Your task to perform on an android device: create a new album in the google photos Image 0: 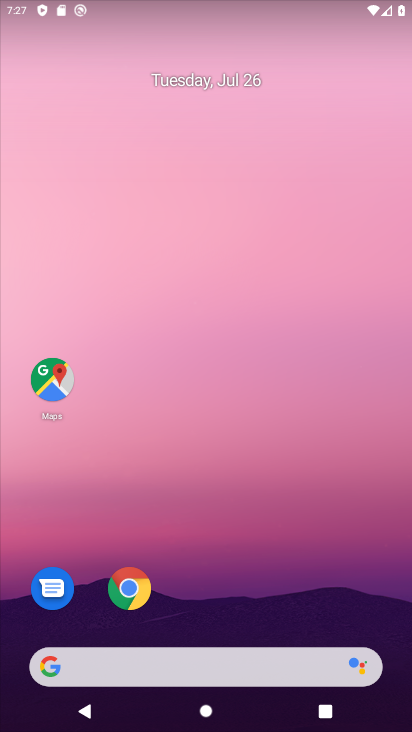
Step 0: drag from (225, 527) to (245, 223)
Your task to perform on an android device: create a new album in the google photos Image 1: 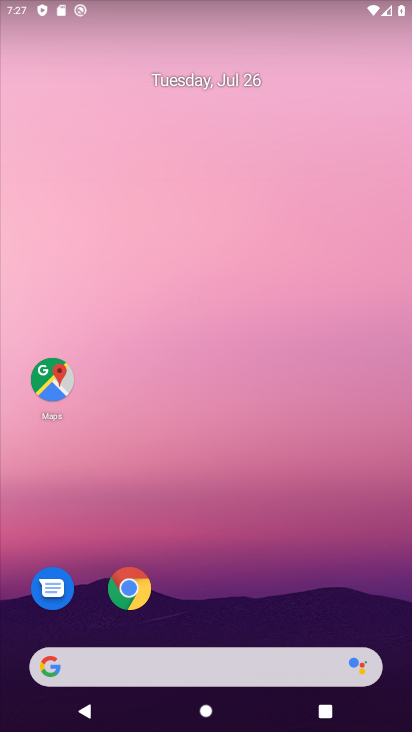
Step 1: drag from (279, 616) to (324, 201)
Your task to perform on an android device: create a new album in the google photos Image 2: 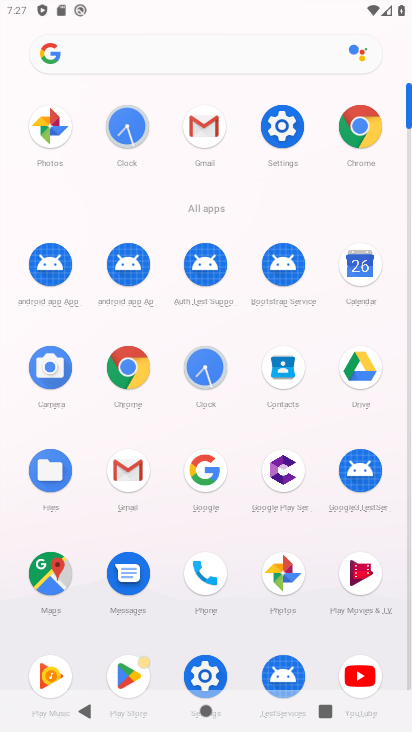
Step 2: click (277, 566)
Your task to perform on an android device: create a new album in the google photos Image 3: 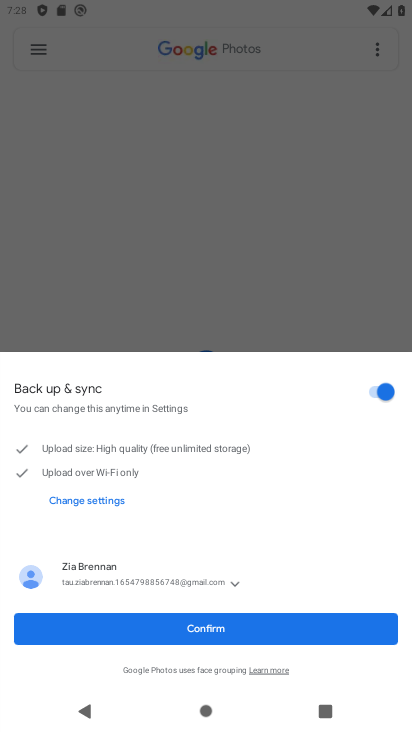
Step 3: click (254, 638)
Your task to perform on an android device: create a new album in the google photos Image 4: 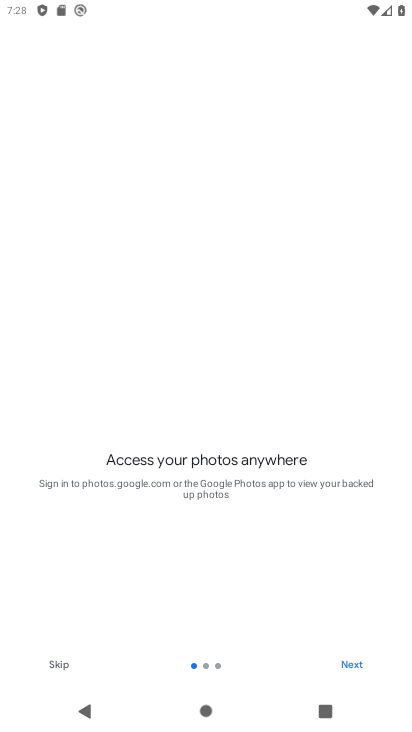
Step 4: task complete